Your task to perform on an android device: What's the weather going to be tomorrow? Image 0: 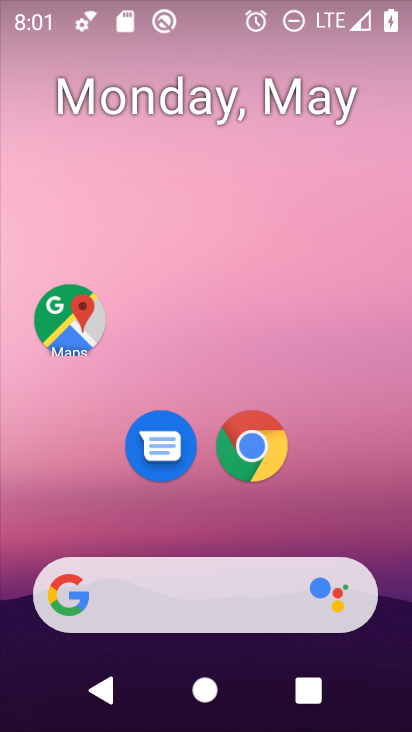
Step 0: click (215, 586)
Your task to perform on an android device: What's the weather going to be tomorrow? Image 1: 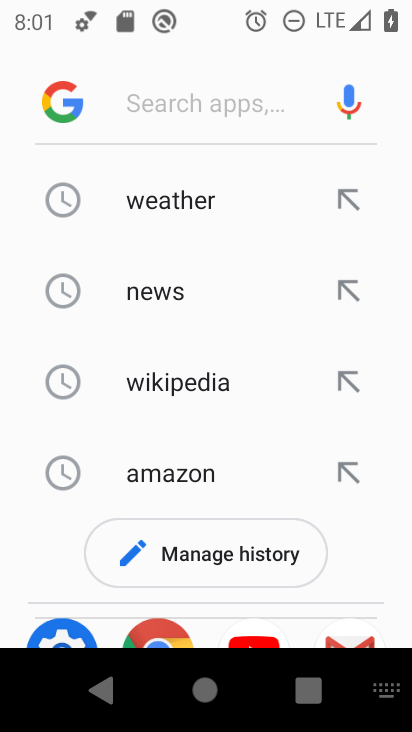
Step 1: click (183, 198)
Your task to perform on an android device: What's the weather going to be tomorrow? Image 2: 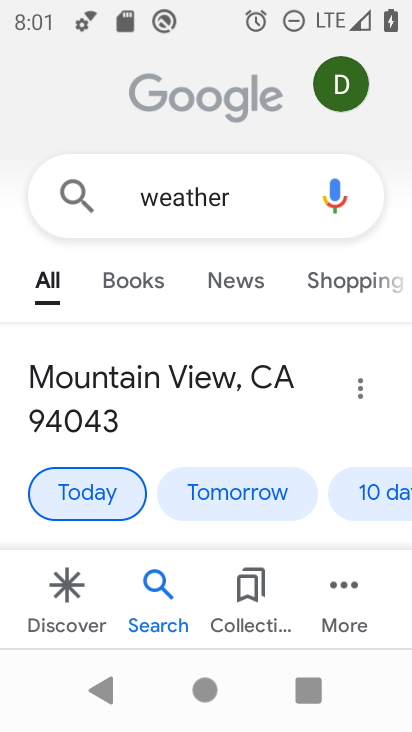
Step 2: click (226, 502)
Your task to perform on an android device: What's the weather going to be tomorrow? Image 3: 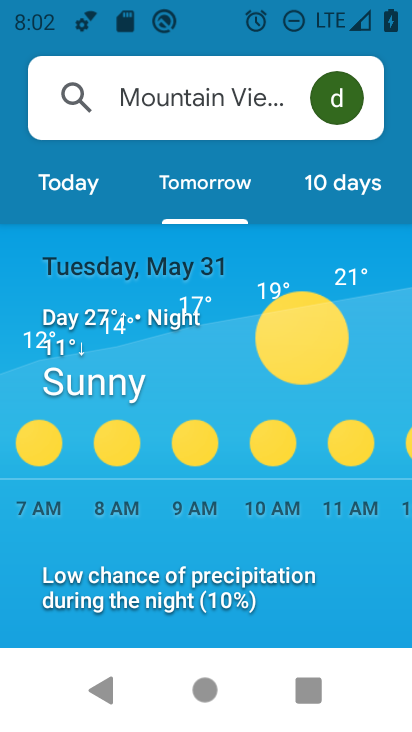
Step 3: task complete